Your task to perform on an android device: Open settings Image 0: 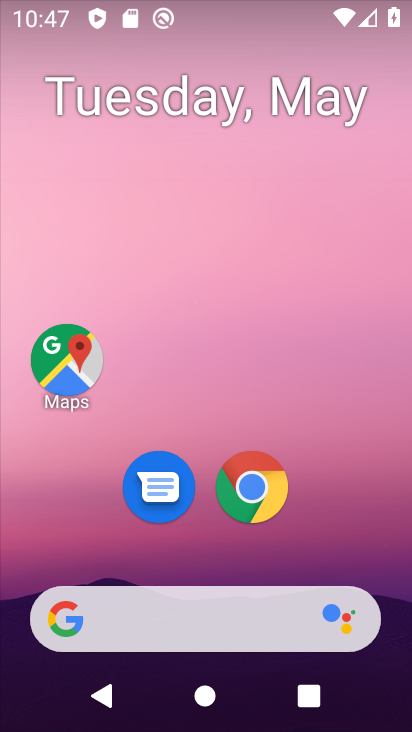
Step 0: drag from (341, 596) to (303, 60)
Your task to perform on an android device: Open settings Image 1: 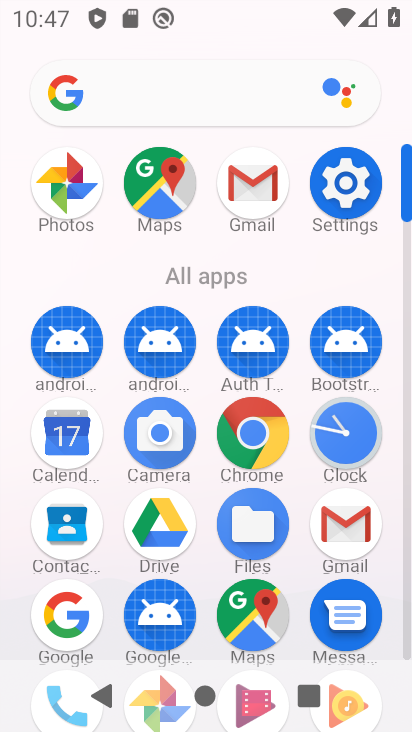
Step 1: drag from (302, 588) to (289, 200)
Your task to perform on an android device: Open settings Image 2: 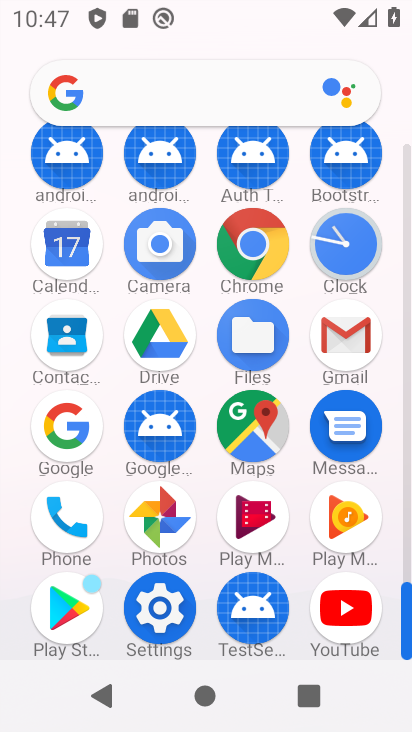
Step 2: click (153, 610)
Your task to perform on an android device: Open settings Image 3: 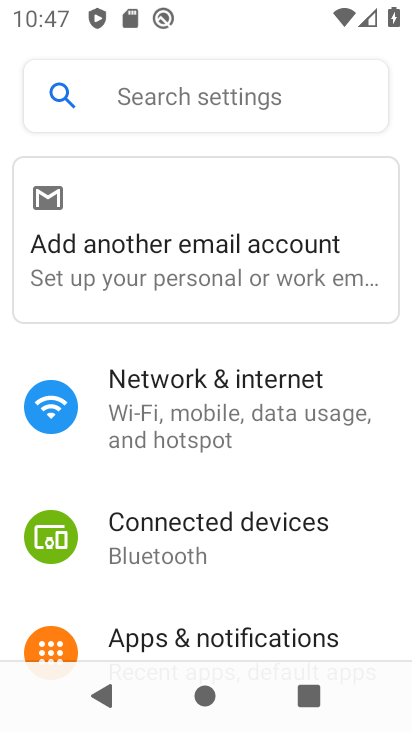
Step 3: task complete